Your task to perform on an android device: turn off smart reply in the gmail app Image 0: 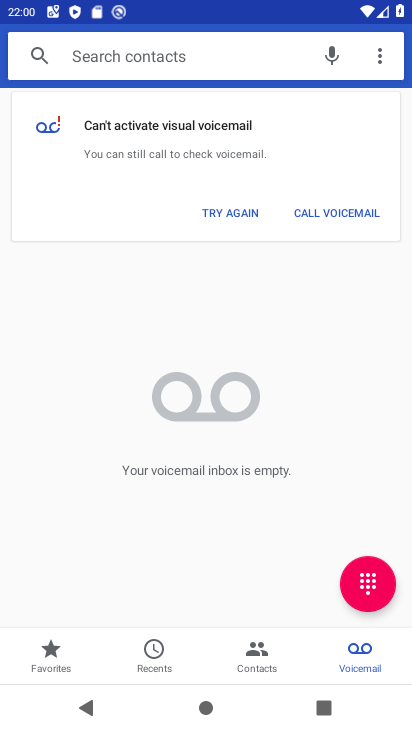
Step 0: press home button
Your task to perform on an android device: turn off smart reply in the gmail app Image 1: 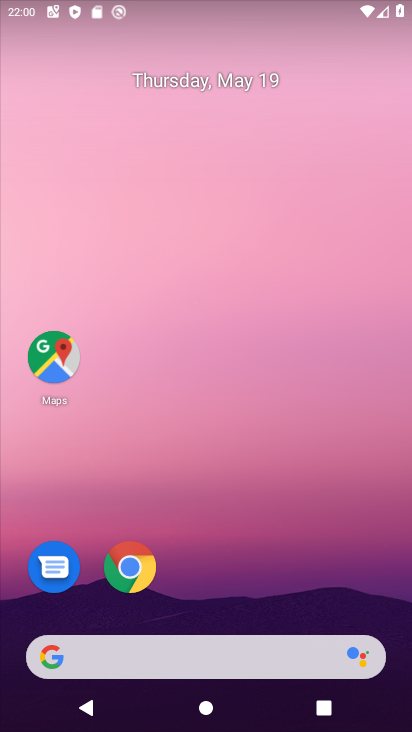
Step 1: drag from (205, 606) to (245, 46)
Your task to perform on an android device: turn off smart reply in the gmail app Image 2: 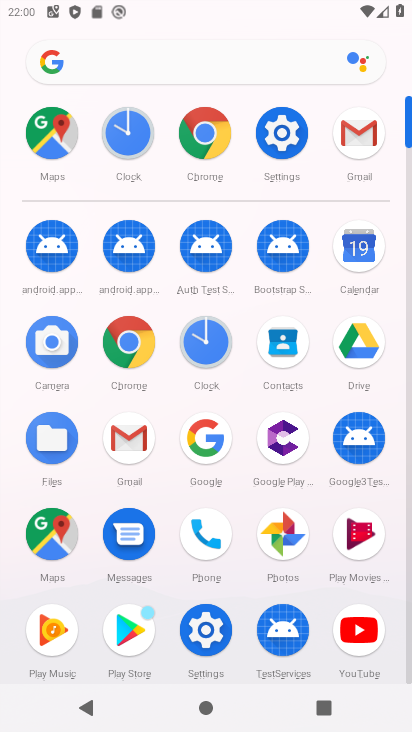
Step 2: click (353, 132)
Your task to perform on an android device: turn off smart reply in the gmail app Image 3: 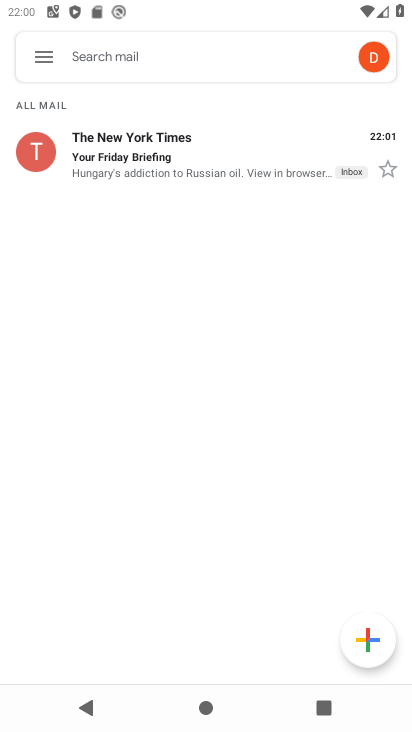
Step 3: click (47, 47)
Your task to perform on an android device: turn off smart reply in the gmail app Image 4: 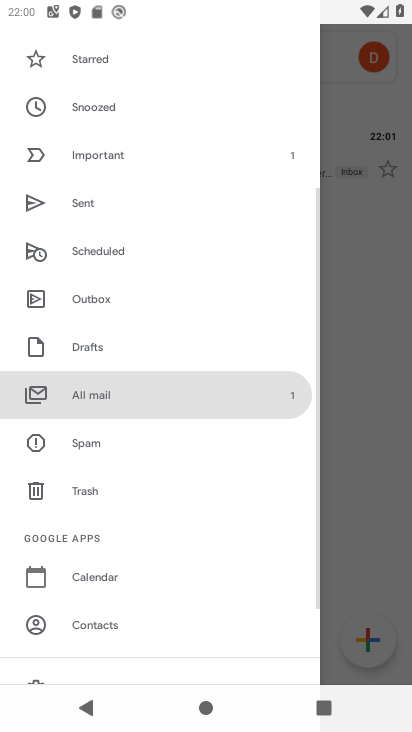
Step 4: drag from (125, 569) to (144, 69)
Your task to perform on an android device: turn off smart reply in the gmail app Image 5: 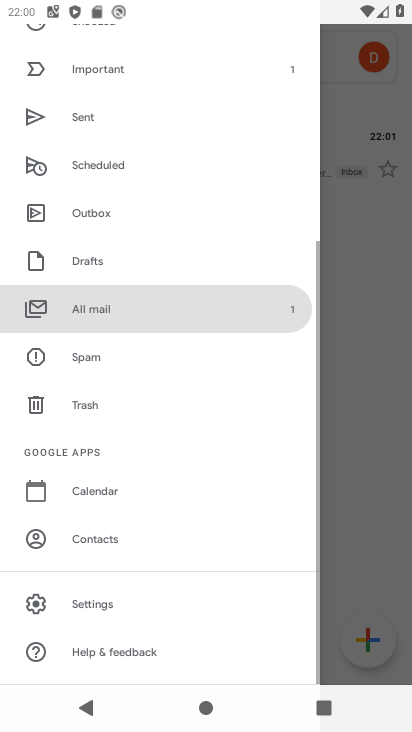
Step 5: click (88, 604)
Your task to perform on an android device: turn off smart reply in the gmail app Image 6: 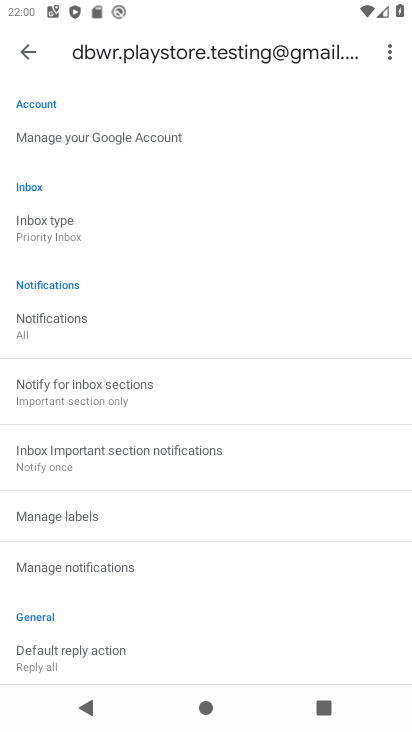
Step 6: drag from (147, 622) to (170, 12)
Your task to perform on an android device: turn off smart reply in the gmail app Image 7: 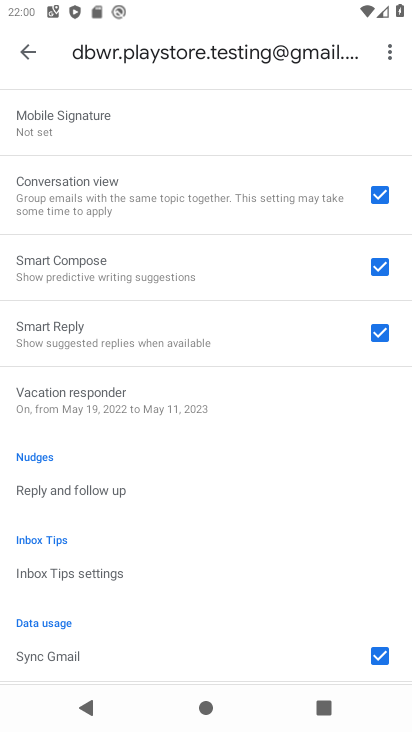
Step 7: click (375, 333)
Your task to perform on an android device: turn off smart reply in the gmail app Image 8: 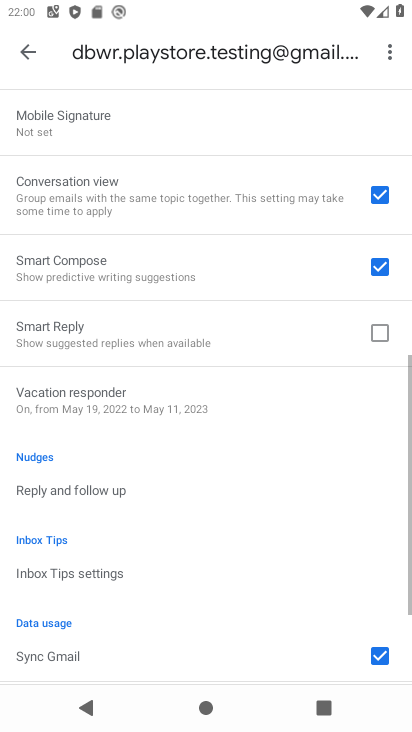
Step 8: task complete